Your task to perform on an android device: turn off improve location accuracy Image 0: 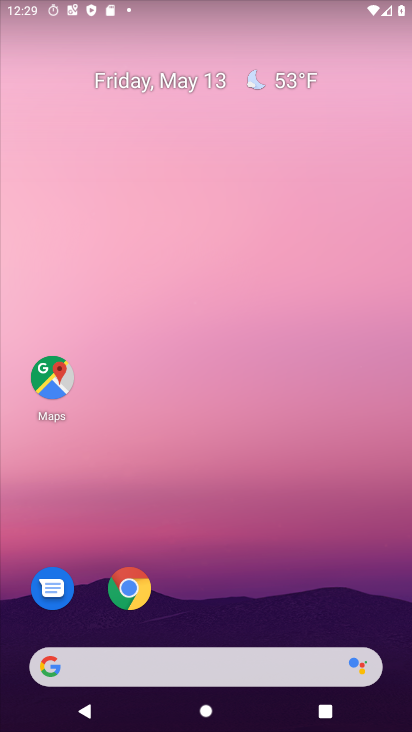
Step 0: drag from (279, 616) to (302, 127)
Your task to perform on an android device: turn off improve location accuracy Image 1: 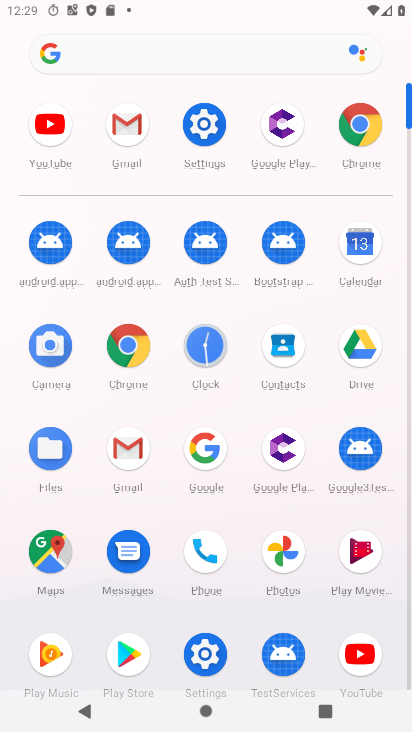
Step 1: click (208, 136)
Your task to perform on an android device: turn off improve location accuracy Image 2: 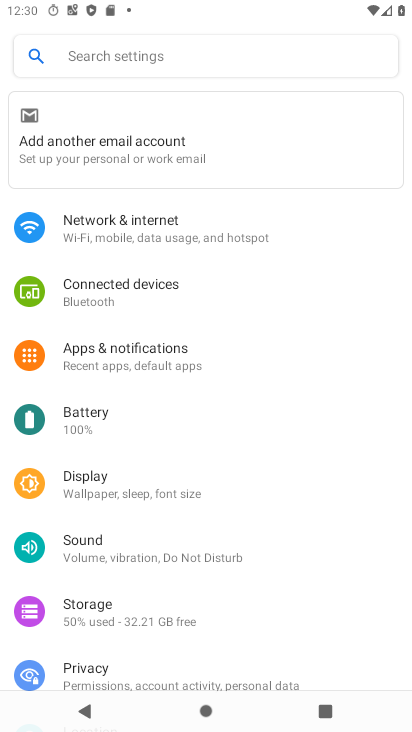
Step 2: drag from (185, 688) to (232, 278)
Your task to perform on an android device: turn off improve location accuracy Image 3: 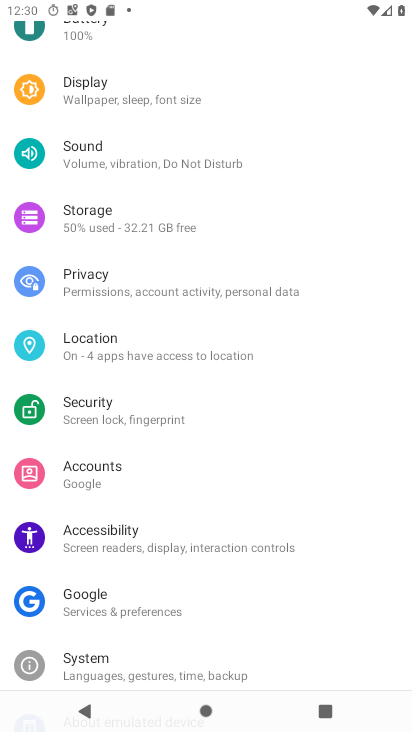
Step 3: click (224, 628)
Your task to perform on an android device: turn off improve location accuracy Image 4: 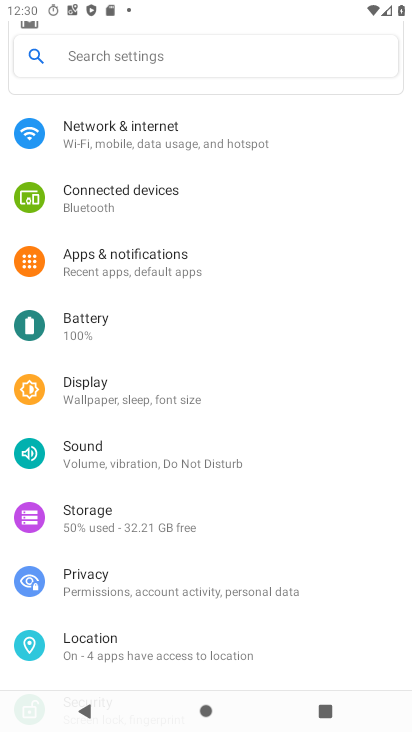
Step 4: drag from (228, 599) to (300, 213)
Your task to perform on an android device: turn off improve location accuracy Image 5: 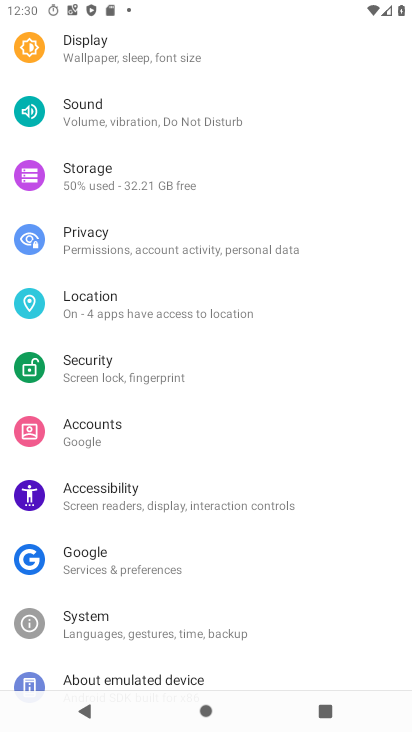
Step 5: drag from (221, 640) to (189, 578)
Your task to perform on an android device: turn off improve location accuracy Image 6: 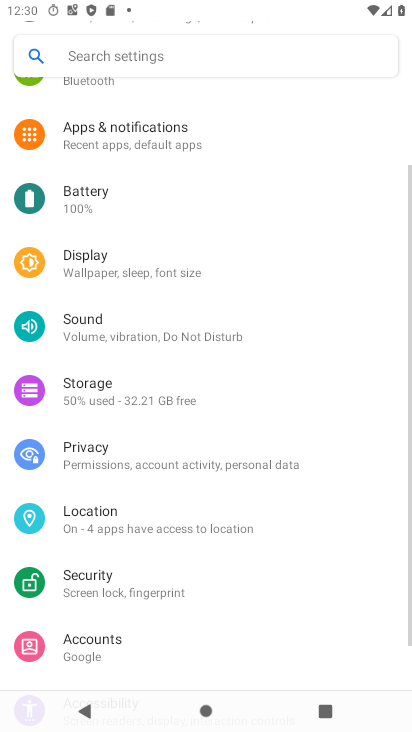
Step 6: drag from (207, 240) to (200, 437)
Your task to perform on an android device: turn off improve location accuracy Image 7: 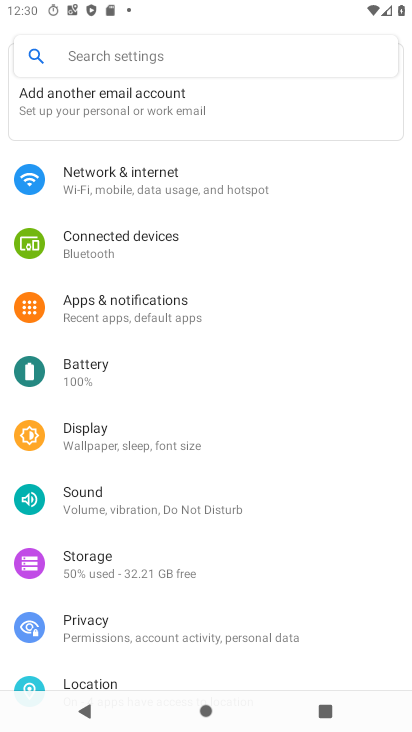
Step 7: drag from (164, 496) to (224, 238)
Your task to perform on an android device: turn off improve location accuracy Image 8: 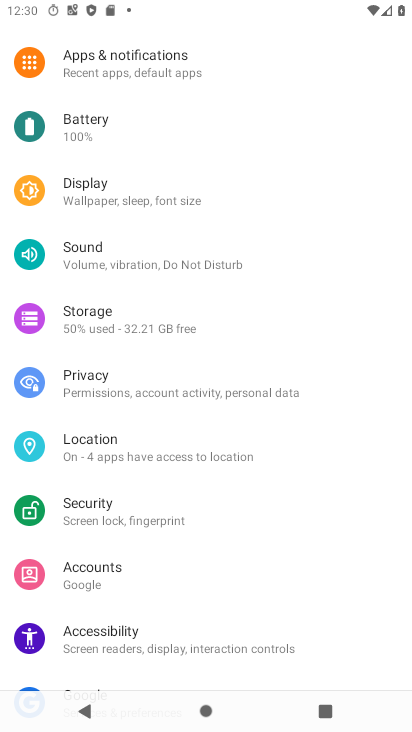
Step 8: click (126, 456)
Your task to perform on an android device: turn off improve location accuracy Image 9: 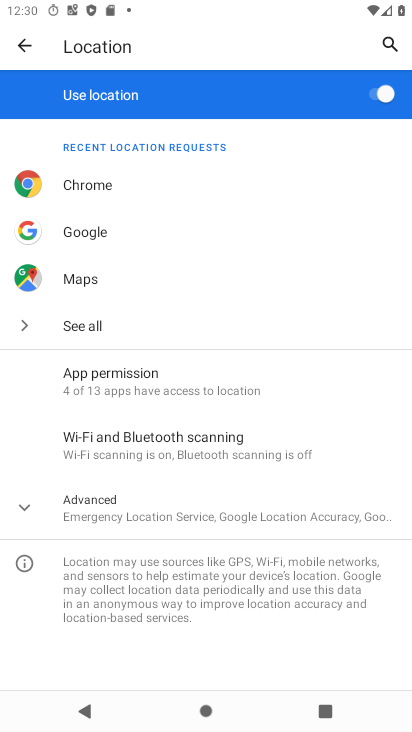
Step 9: click (153, 513)
Your task to perform on an android device: turn off improve location accuracy Image 10: 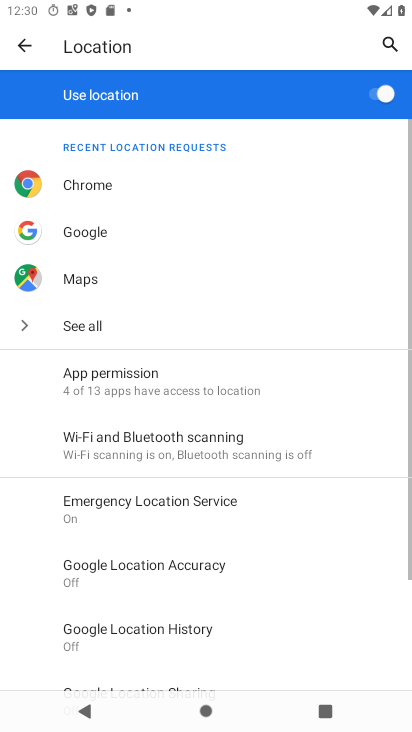
Step 10: drag from (299, 636) to (302, 326)
Your task to perform on an android device: turn off improve location accuracy Image 11: 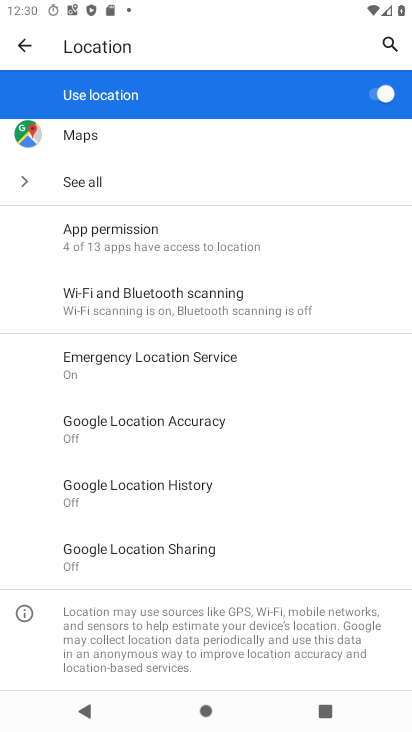
Step 11: click (134, 429)
Your task to perform on an android device: turn off improve location accuracy Image 12: 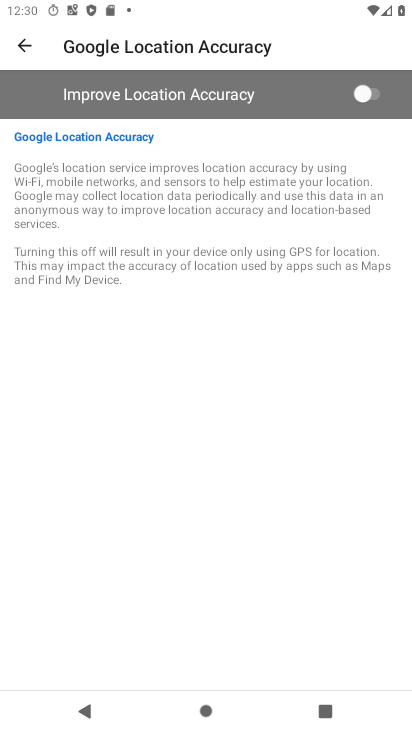
Step 12: task complete